Your task to perform on an android device: turn on bluetooth scan Image 0: 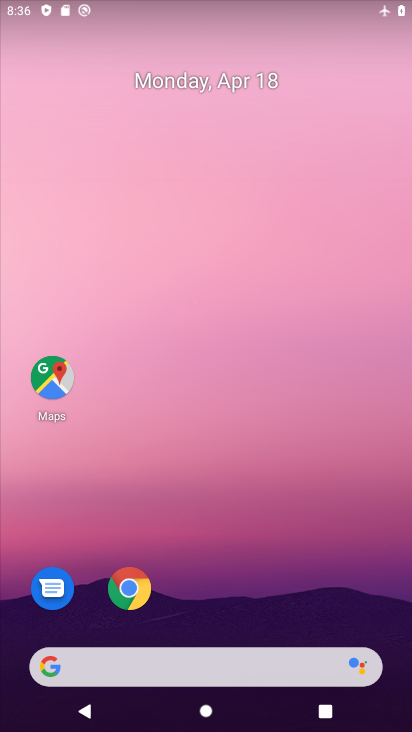
Step 0: drag from (190, 638) to (213, 218)
Your task to perform on an android device: turn on bluetooth scan Image 1: 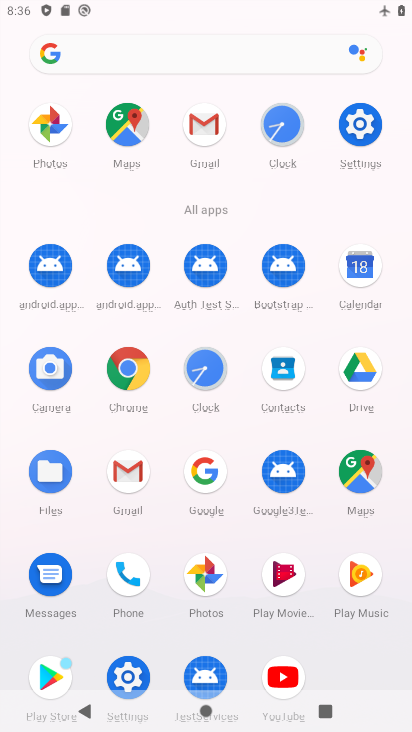
Step 1: click (358, 126)
Your task to perform on an android device: turn on bluetooth scan Image 2: 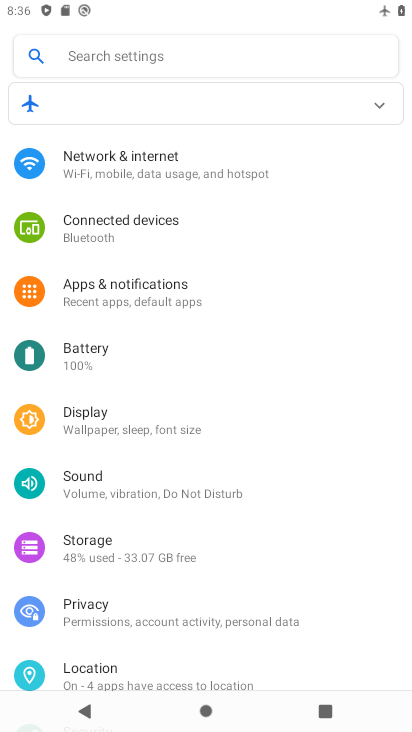
Step 2: click (213, 47)
Your task to perform on an android device: turn on bluetooth scan Image 3: 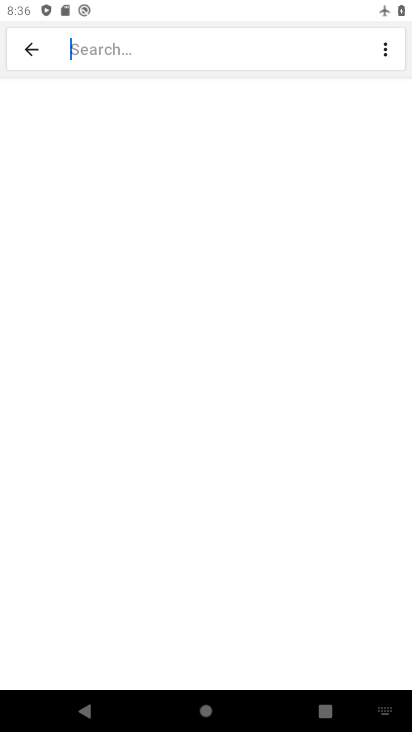
Step 3: type "bluetooth scan"
Your task to perform on an android device: turn on bluetooth scan Image 4: 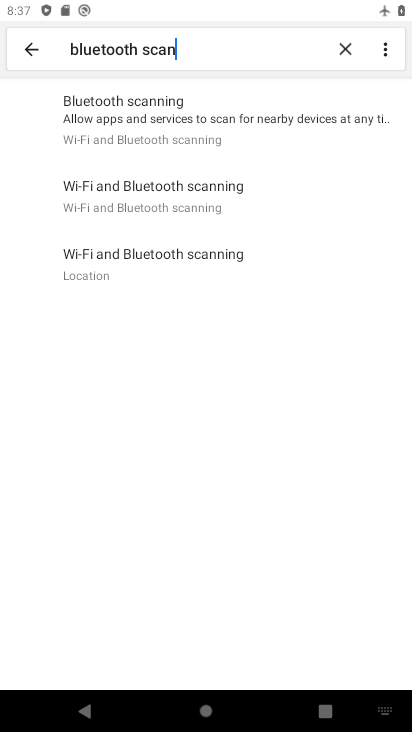
Step 4: click (180, 109)
Your task to perform on an android device: turn on bluetooth scan Image 5: 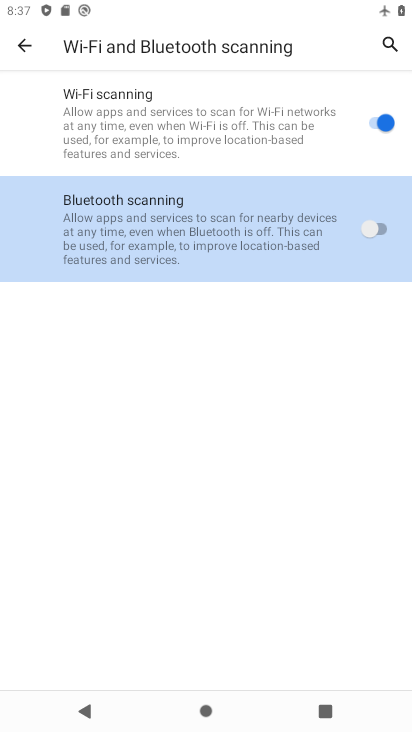
Step 5: click (373, 227)
Your task to perform on an android device: turn on bluetooth scan Image 6: 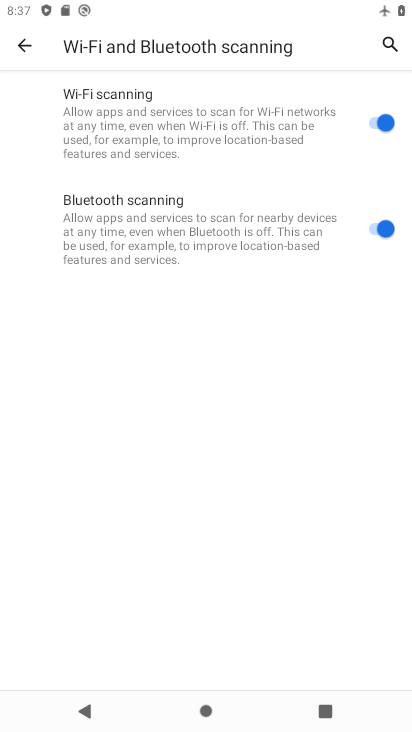
Step 6: task complete